Your task to perform on an android device: Find coffee shops on Maps Image 0: 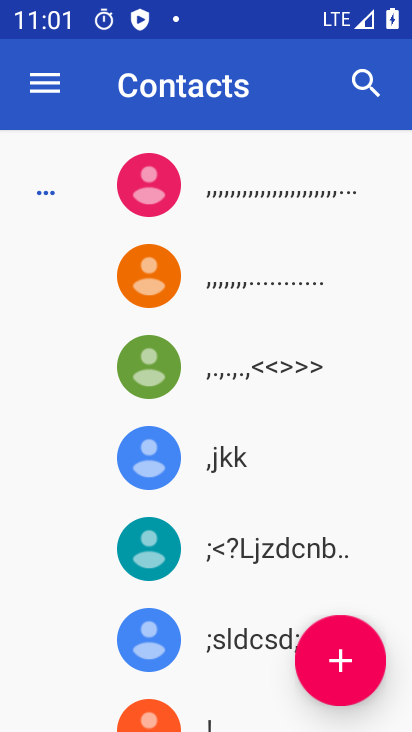
Step 0: press home button
Your task to perform on an android device: Find coffee shops on Maps Image 1: 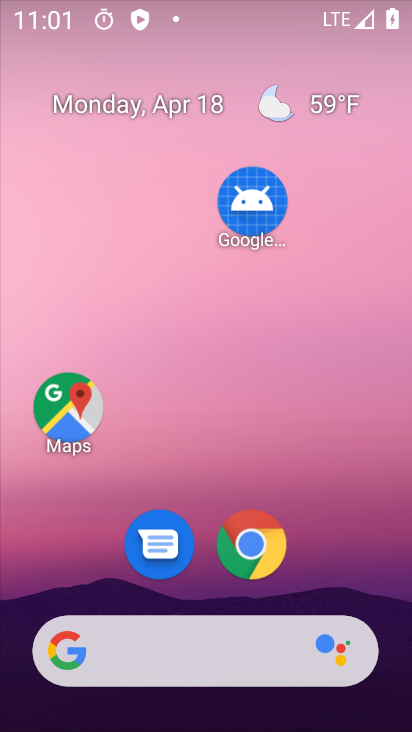
Step 1: drag from (235, 671) to (309, 222)
Your task to perform on an android device: Find coffee shops on Maps Image 2: 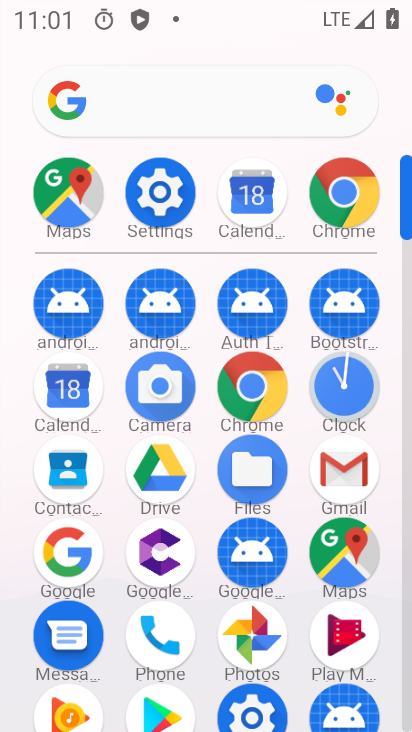
Step 2: click (352, 538)
Your task to perform on an android device: Find coffee shops on Maps Image 3: 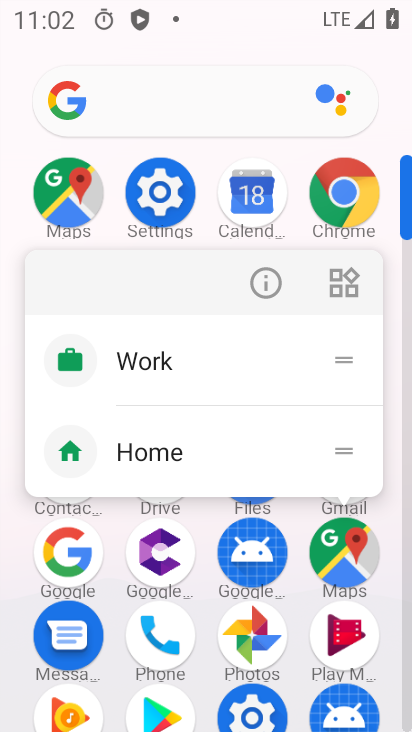
Step 3: click (66, 186)
Your task to perform on an android device: Find coffee shops on Maps Image 4: 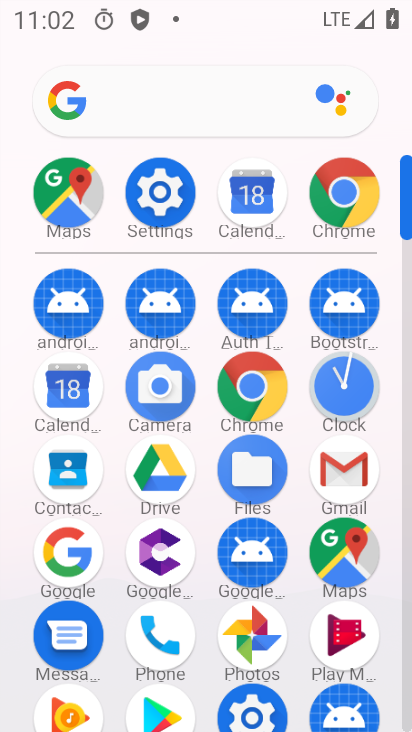
Step 4: click (94, 190)
Your task to perform on an android device: Find coffee shops on Maps Image 5: 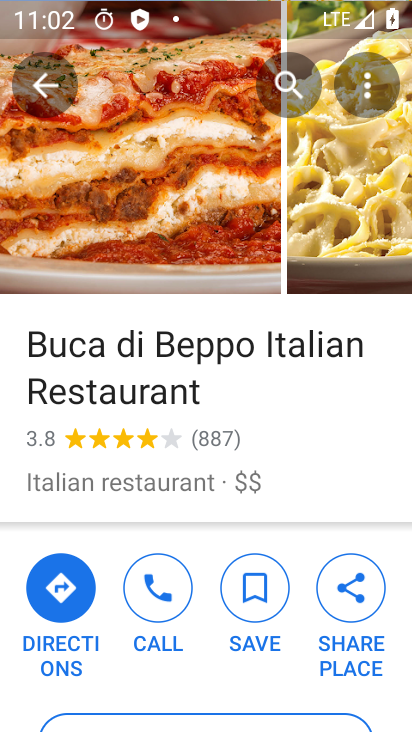
Step 5: click (57, 70)
Your task to perform on an android device: Find coffee shops on Maps Image 6: 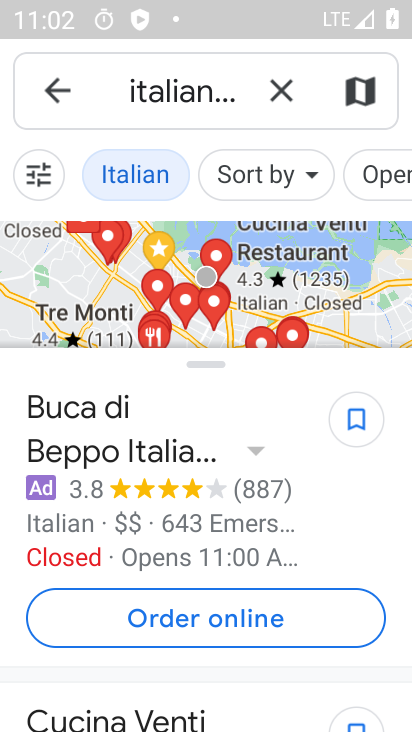
Step 6: click (279, 99)
Your task to perform on an android device: Find coffee shops on Maps Image 7: 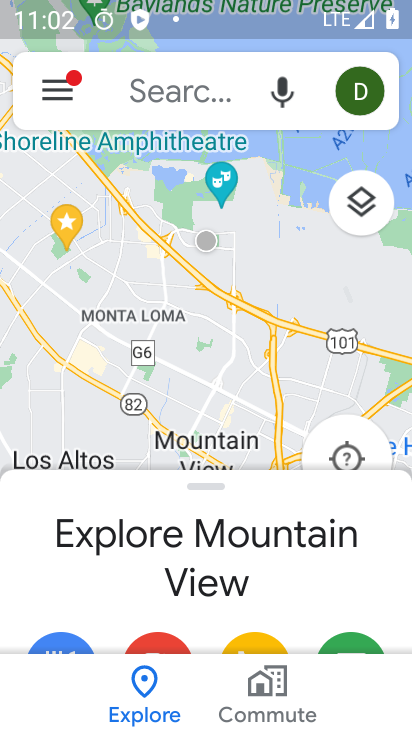
Step 7: click (217, 79)
Your task to perform on an android device: Find coffee shops on Maps Image 8: 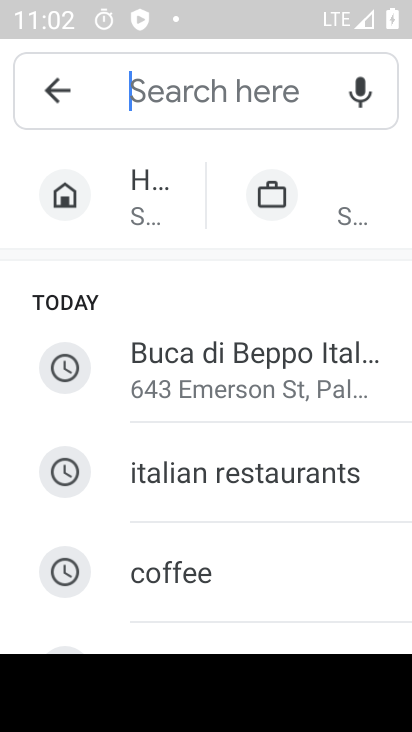
Step 8: click (201, 554)
Your task to perform on an android device: Find coffee shops on Maps Image 9: 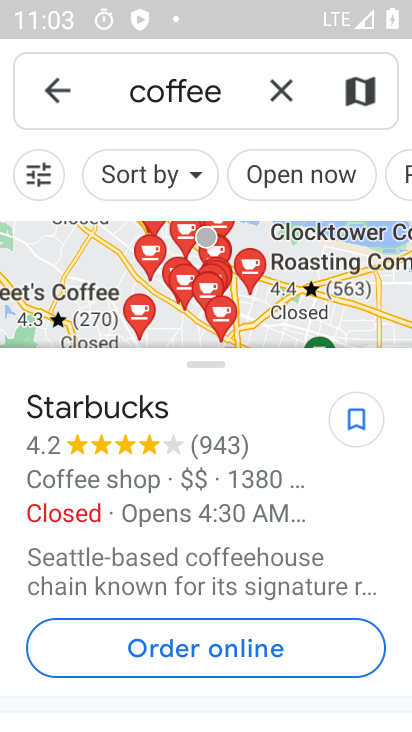
Step 9: task complete